Your task to perform on an android device: check storage Image 0: 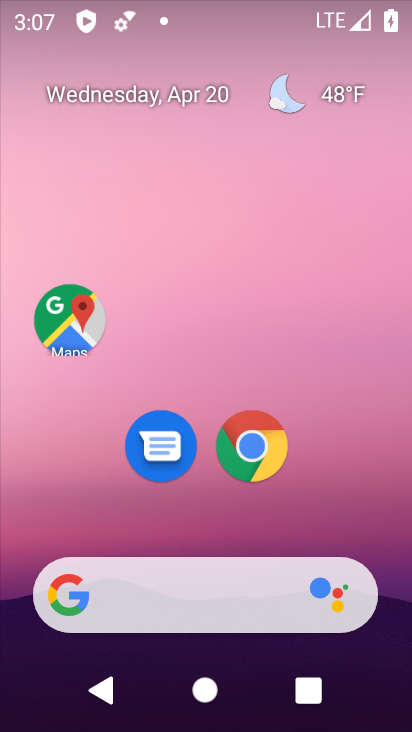
Step 0: drag from (300, 522) to (362, 6)
Your task to perform on an android device: check storage Image 1: 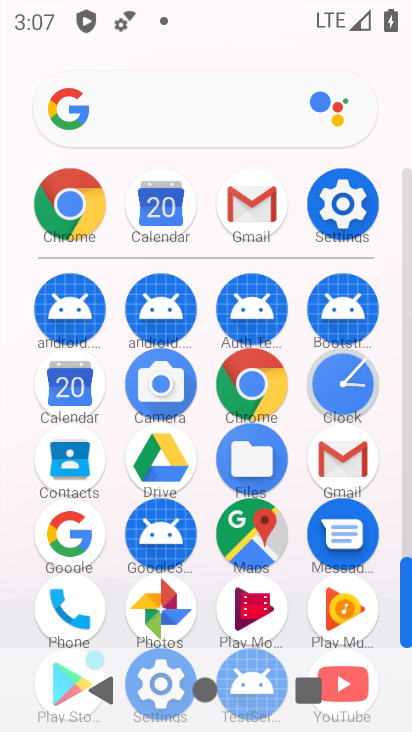
Step 1: click (345, 204)
Your task to perform on an android device: check storage Image 2: 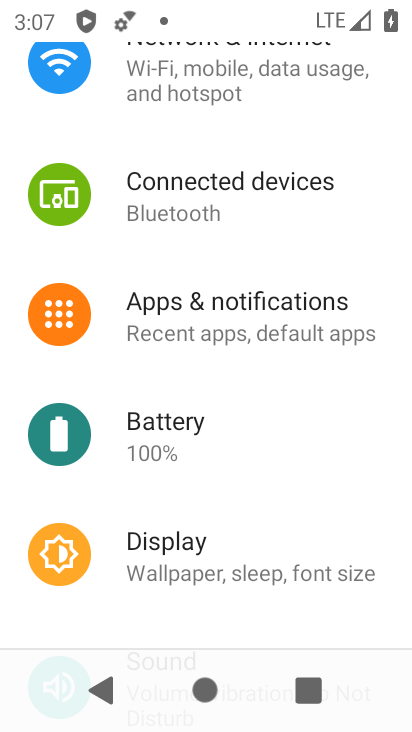
Step 2: drag from (243, 511) to (267, 303)
Your task to perform on an android device: check storage Image 3: 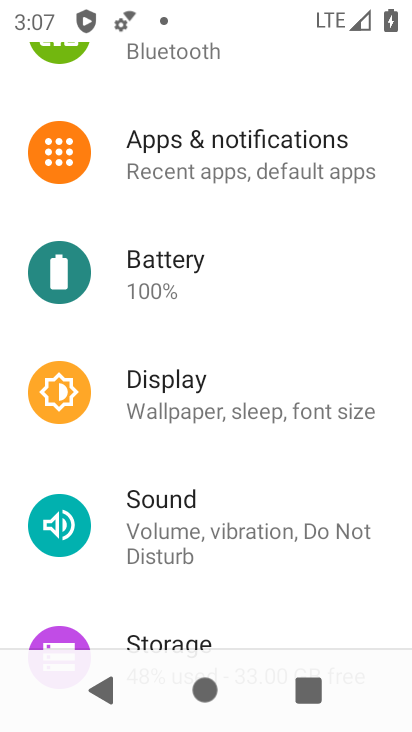
Step 3: drag from (240, 490) to (316, 327)
Your task to perform on an android device: check storage Image 4: 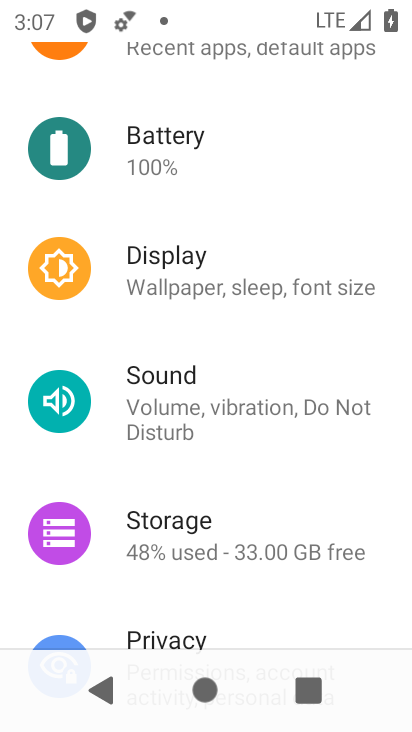
Step 4: drag from (279, 483) to (349, 304)
Your task to perform on an android device: check storage Image 5: 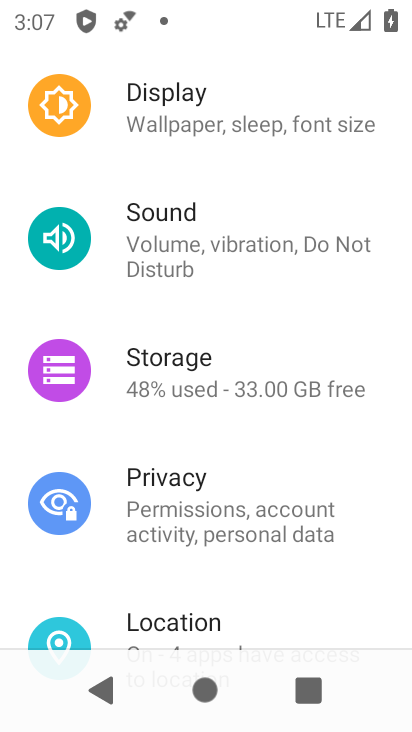
Step 5: click (213, 384)
Your task to perform on an android device: check storage Image 6: 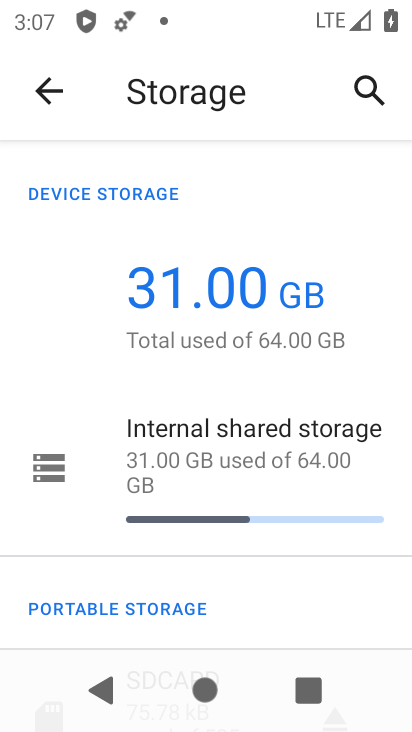
Step 6: task complete